Your task to perform on an android device: Open Google Chrome and click the shortcut for Amazon.com Image 0: 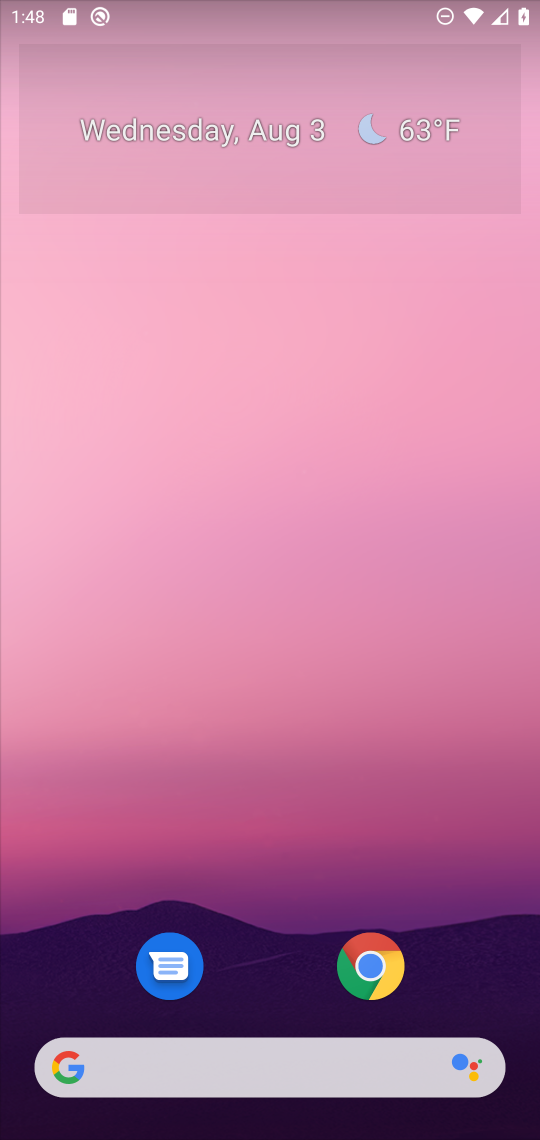
Step 0: click (345, 957)
Your task to perform on an android device: Open Google Chrome and click the shortcut for Amazon.com Image 1: 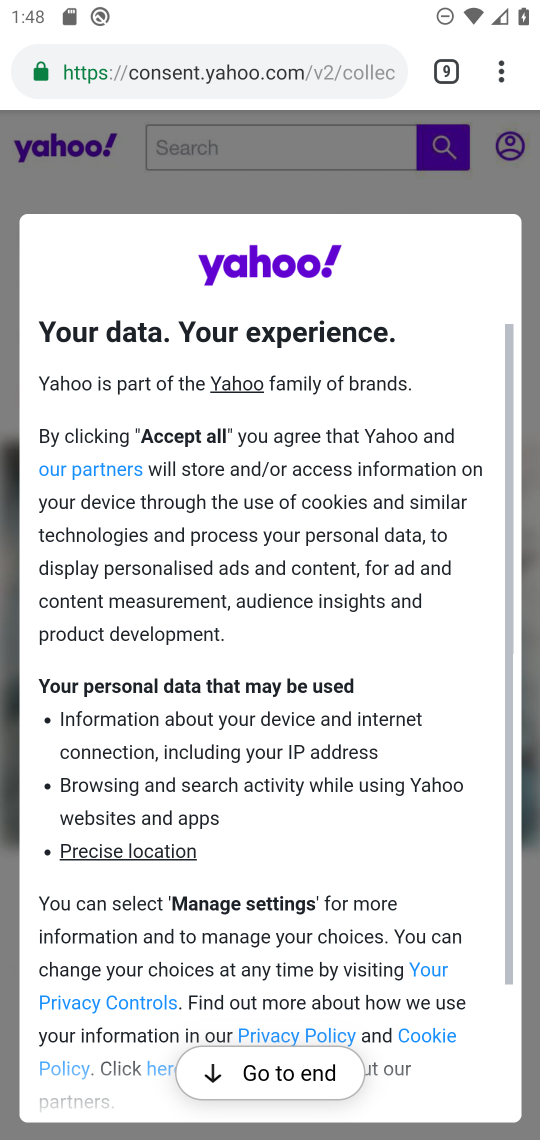
Step 1: click (456, 71)
Your task to perform on an android device: Open Google Chrome and click the shortcut for Amazon.com Image 2: 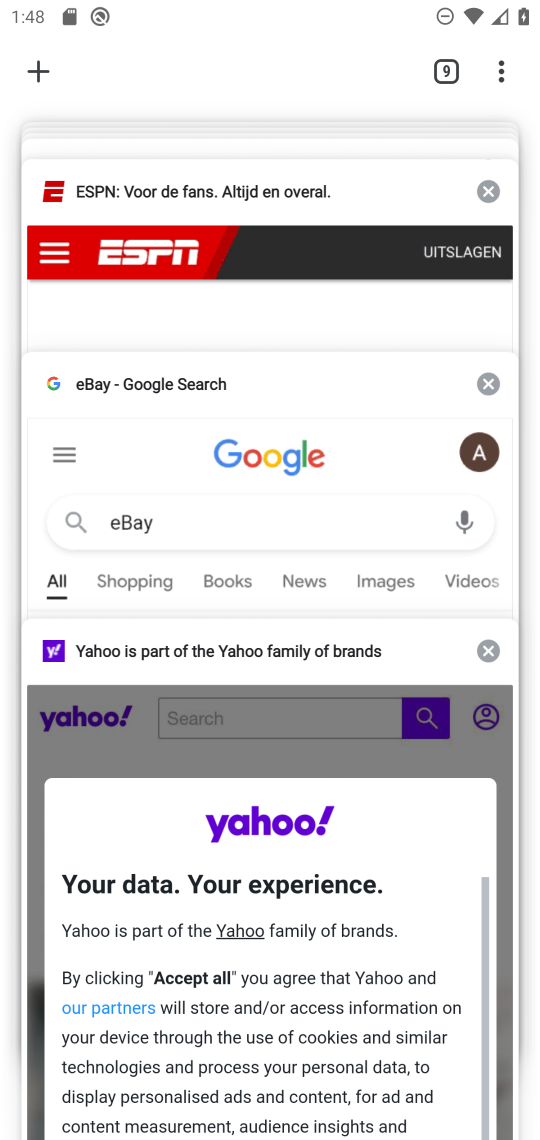
Step 2: click (36, 73)
Your task to perform on an android device: Open Google Chrome and click the shortcut for Amazon.com Image 3: 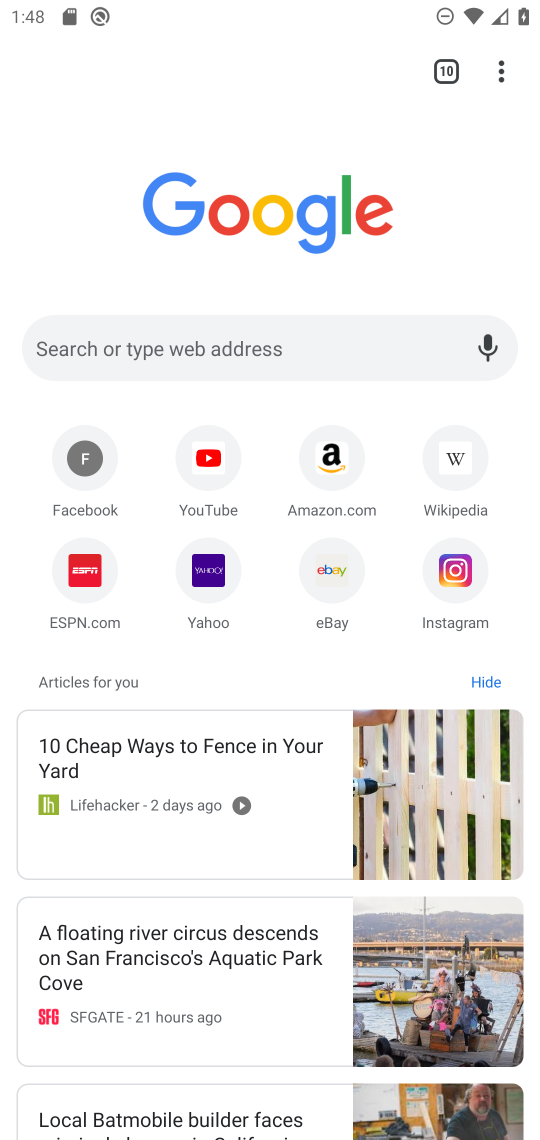
Step 3: click (327, 477)
Your task to perform on an android device: Open Google Chrome and click the shortcut for Amazon.com Image 4: 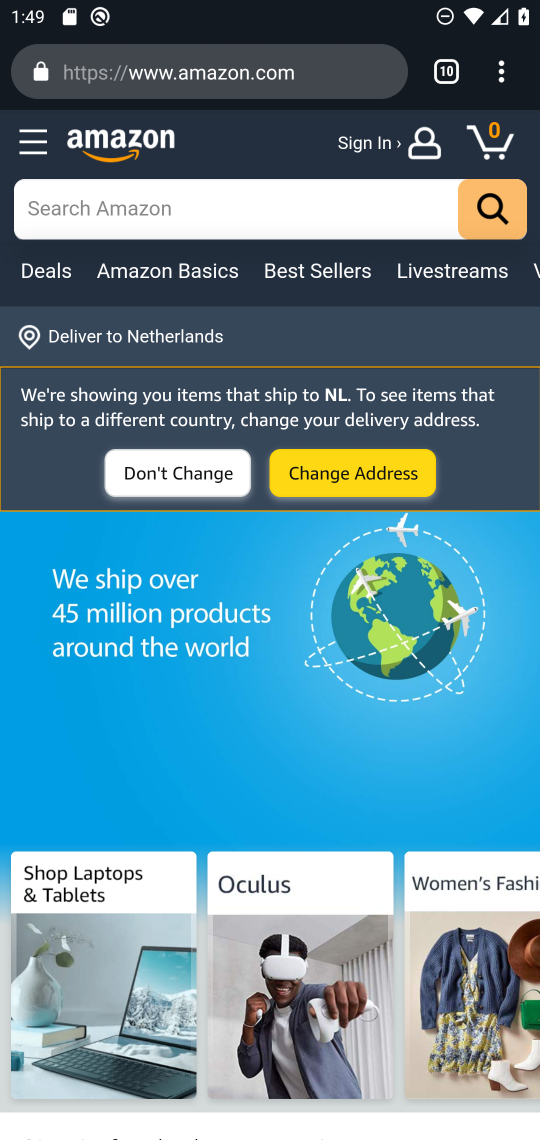
Step 4: task complete